Your task to perform on an android device: toggle location history Image 0: 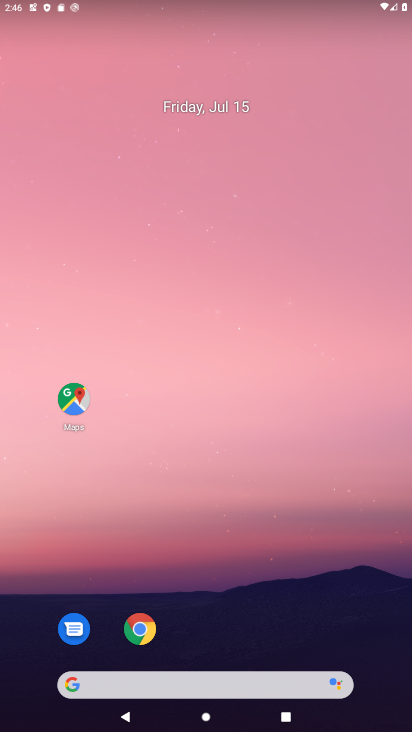
Step 0: drag from (240, 652) to (202, 72)
Your task to perform on an android device: toggle location history Image 1: 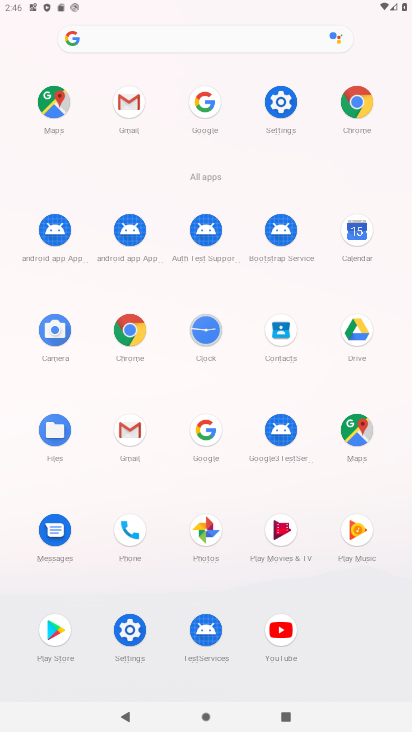
Step 1: click (132, 628)
Your task to perform on an android device: toggle location history Image 2: 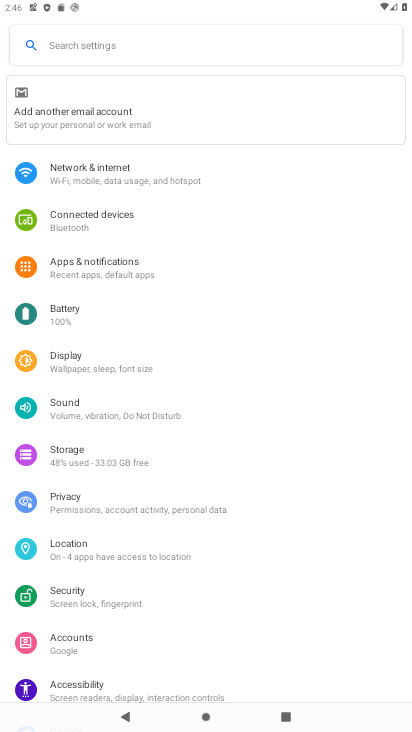
Step 2: click (90, 555)
Your task to perform on an android device: toggle location history Image 3: 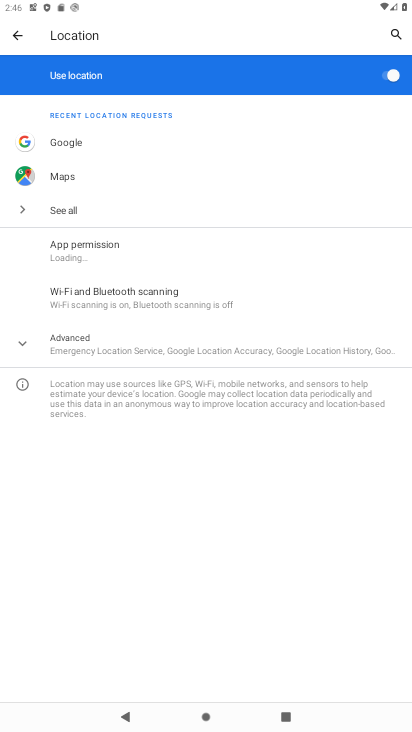
Step 3: click (76, 332)
Your task to perform on an android device: toggle location history Image 4: 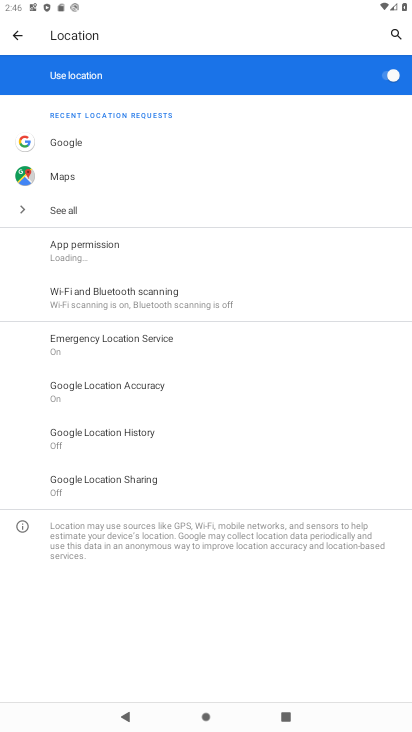
Step 4: click (116, 426)
Your task to perform on an android device: toggle location history Image 5: 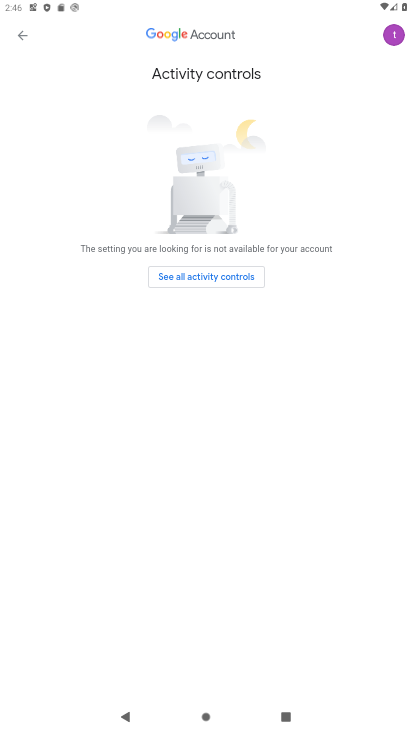
Step 5: click (211, 273)
Your task to perform on an android device: toggle location history Image 6: 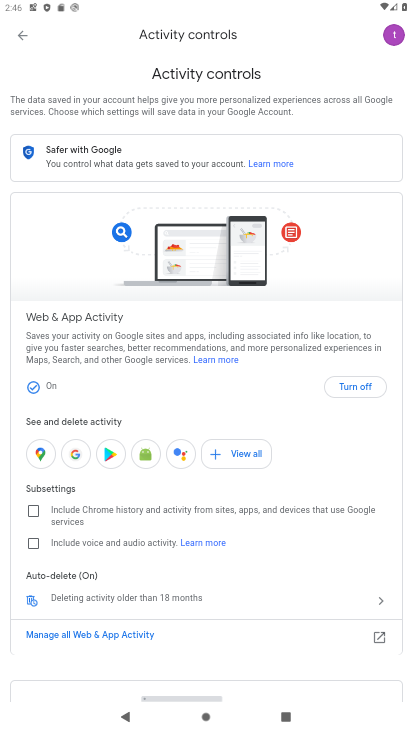
Step 6: click (359, 387)
Your task to perform on an android device: toggle location history Image 7: 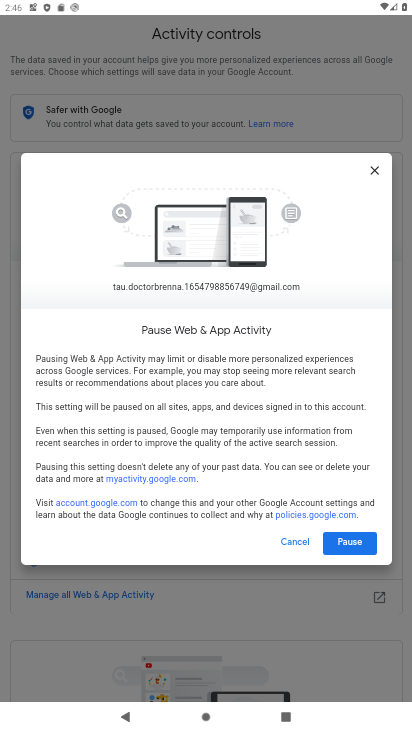
Step 7: click (356, 549)
Your task to perform on an android device: toggle location history Image 8: 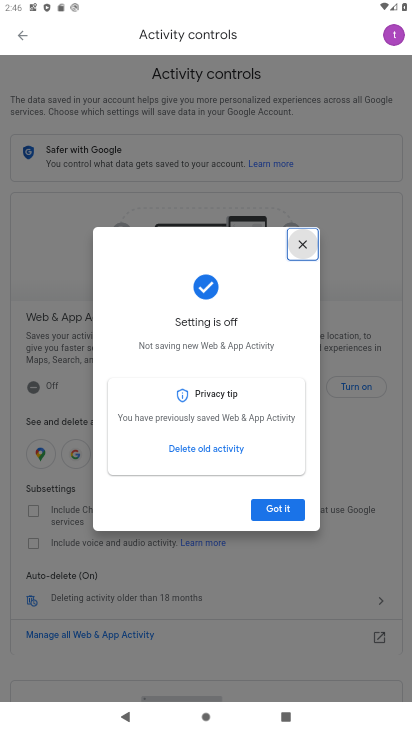
Step 8: click (297, 510)
Your task to perform on an android device: toggle location history Image 9: 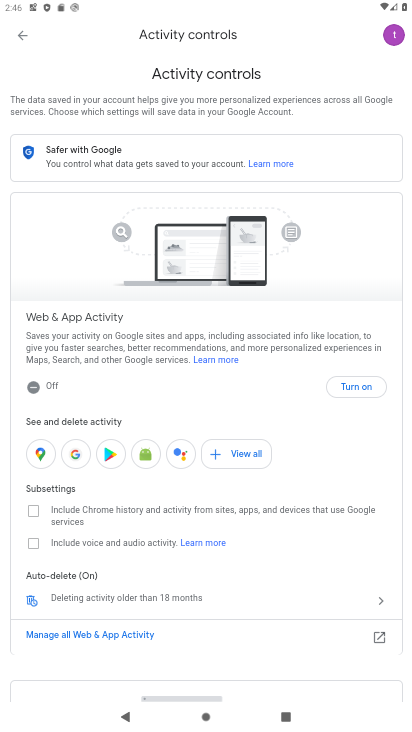
Step 9: task complete